Your task to perform on an android device: Open eBay Image 0: 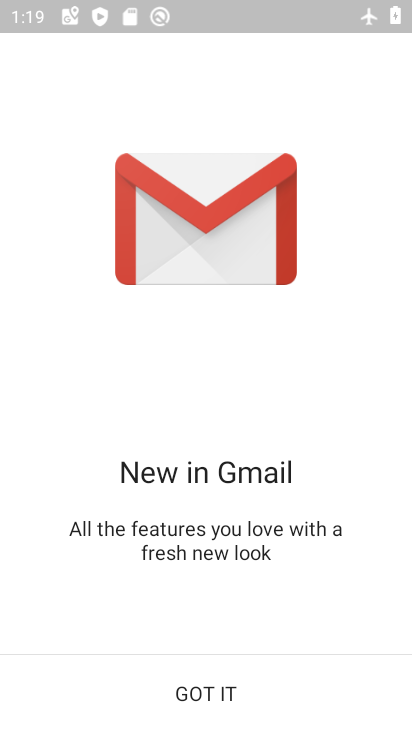
Step 0: press home button
Your task to perform on an android device: Open eBay Image 1: 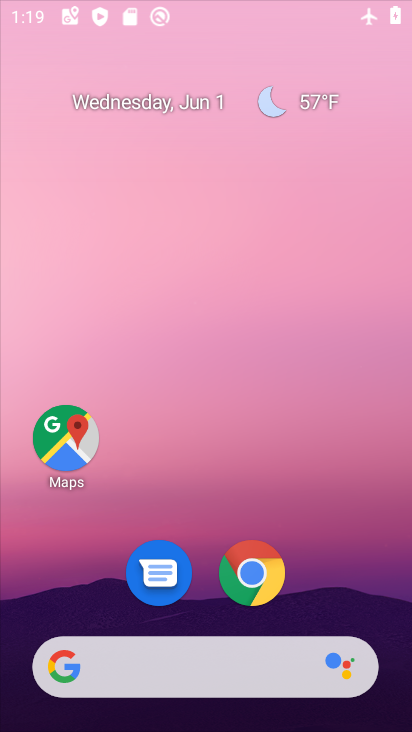
Step 1: drag from (186, 543) to (174, 60)
Your task to perform on an android device: Open eBay Image 2: 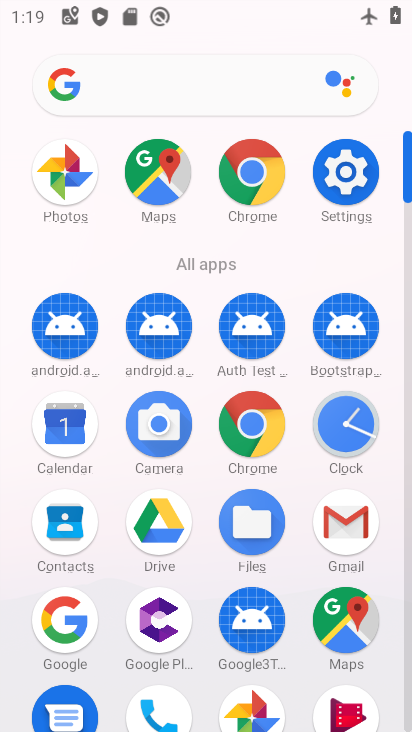
Step 2: click (150, 98)
Your task to perform on an android device: Open eBay Image 3: 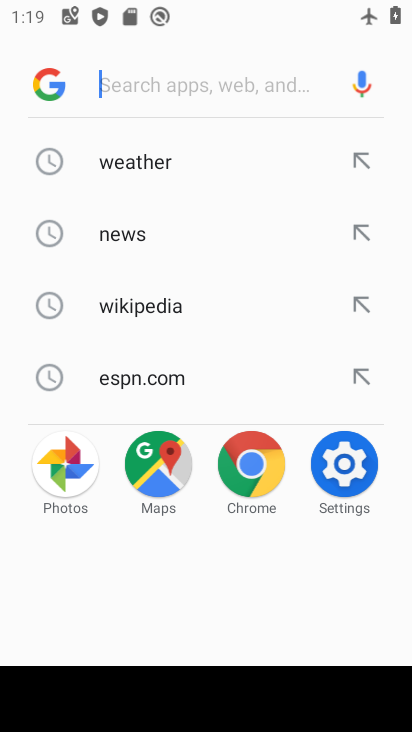
Step 3: click (142, 79)
Your task to perform on an android device: Open eBay Image 4: 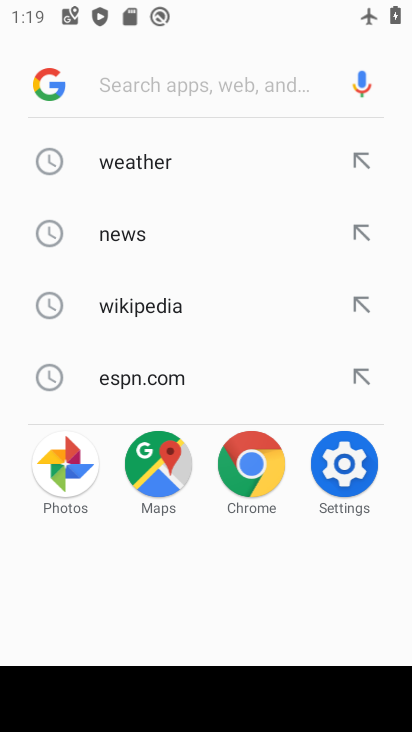
Step 4: click (142, 79)
Your task to perform on an android device: Open eBay Image 5: 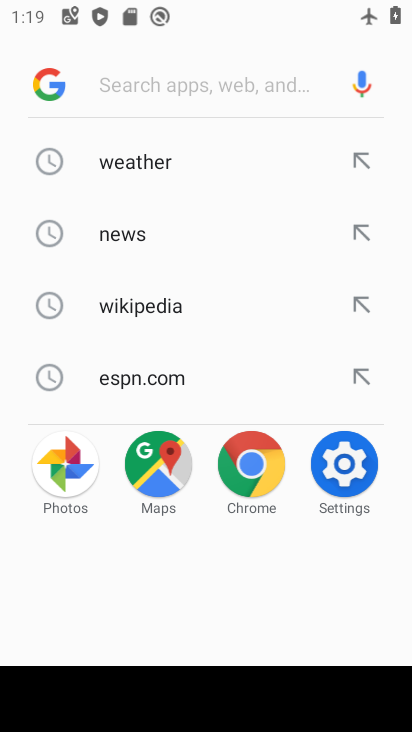
Step 5: type "eBay"
Your task to perform on an android device: Open eBay Image 6: 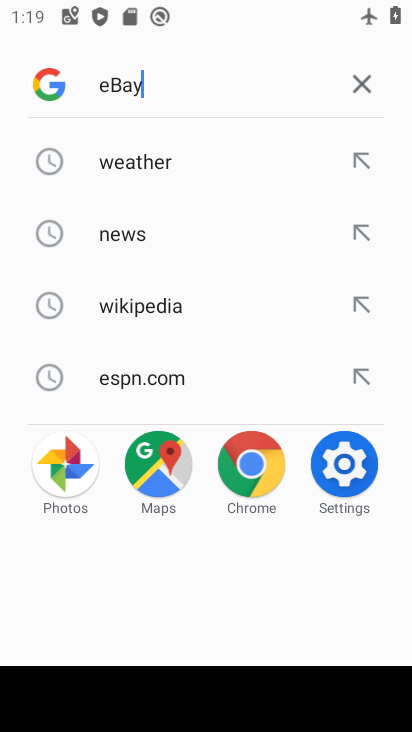
Step 6: type ""
Your task to perform on an android device: Open eBay Image 7: 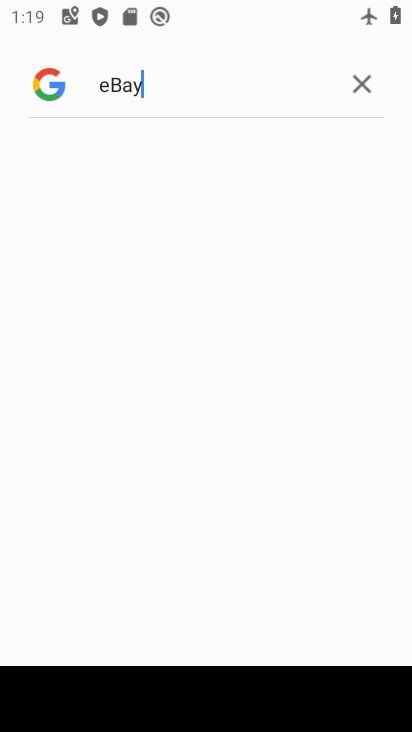
Step 7: task complete